Your task to perform on an android device: Open battery settings Image 0: 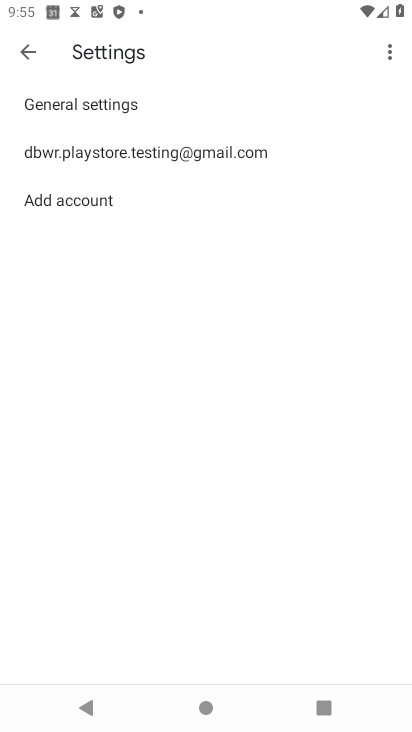
Step 0: press home button
Your task to perform on an android device: Open battery settings Image 1: 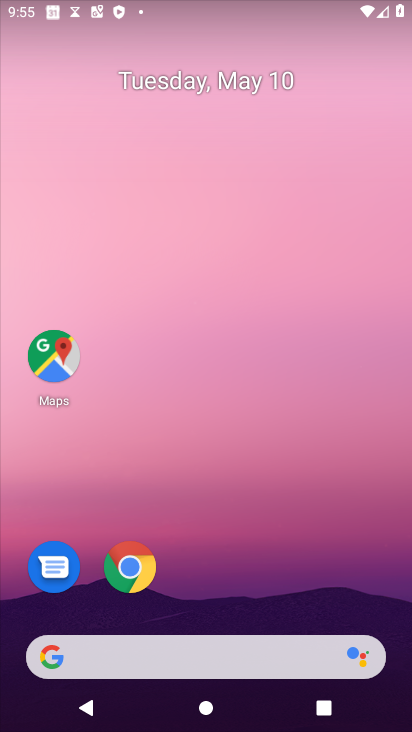
Step 1: drag from (63, 541) to (273, 147)
Your task to perform on an android device: Open battery settings Image 2: 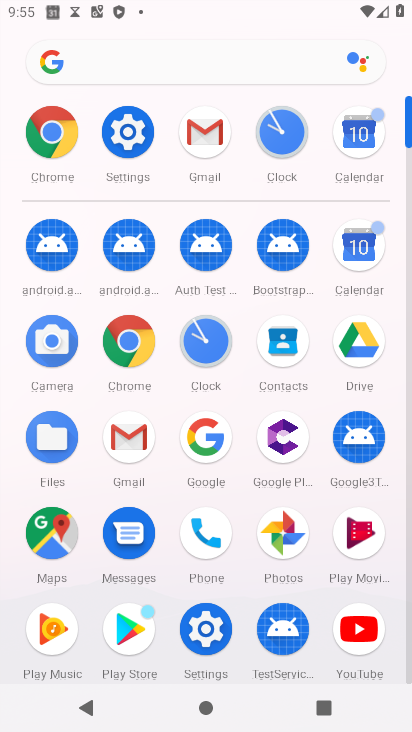
Step 2: click (123, 126)
Your task to perform on an android device: Open battery settings Image 3: 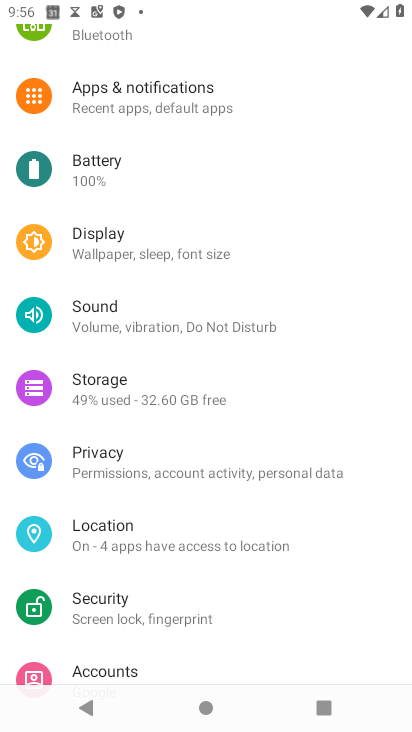
Step 3: click (112, 159)
Your task to perform on an android device: Open battery settings Image 4: 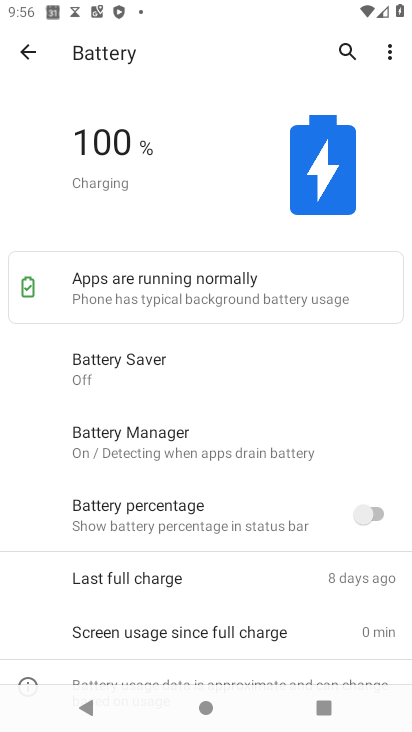
Step 4: task complete